Your task to perform on an android device: snooze an email in the gmail app Image 0: 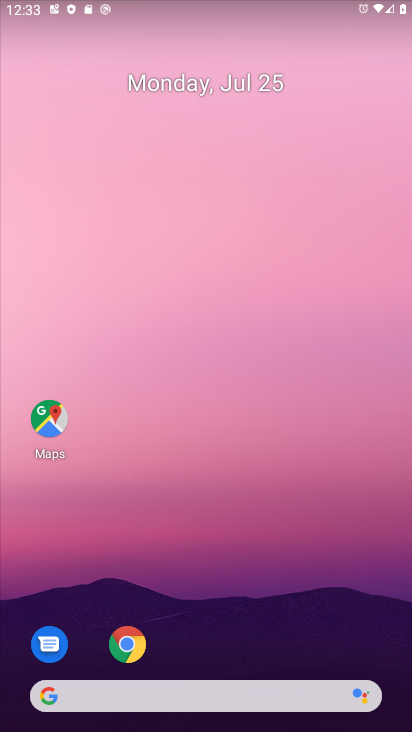
Step 0: drag from (404, 630) to (122, 77)
Your task to perform on an android device: snooze an email in the gmail app Image 1: 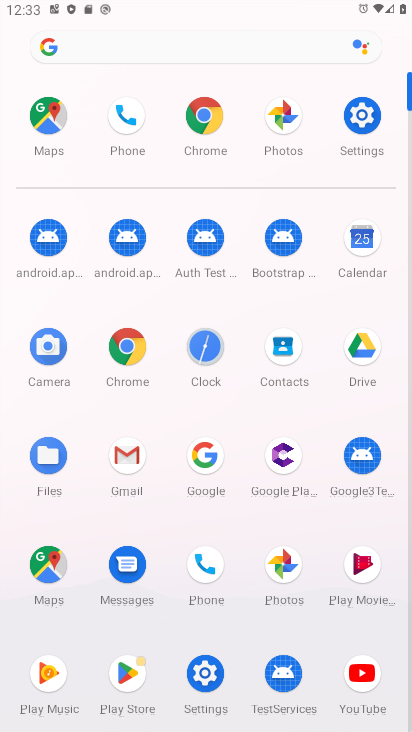
Step 1: click (126, 464)
Your task to perform on an android device: snooze an email in the gmail app Image 2: 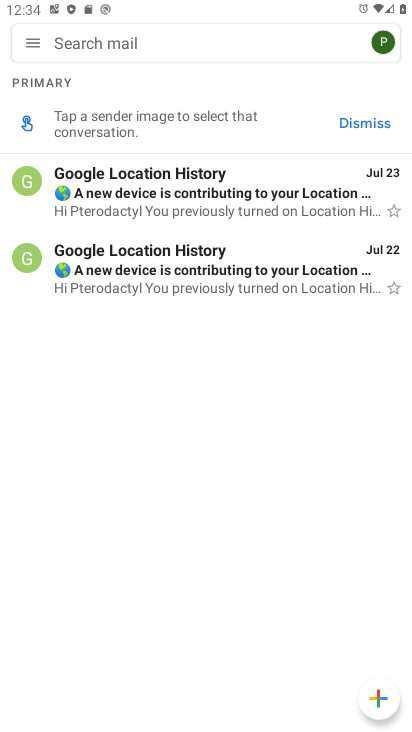
Step 2: click (320, 205)
Your task to perform on an android device: snooze an email in the gmail app Image 3: 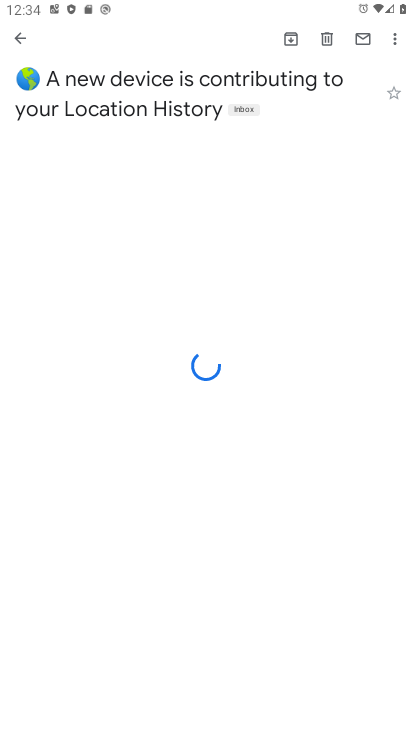
Step 3: click (411, 22)
Your task to perform on an android device: snooze an email in the gmail app Image 4: 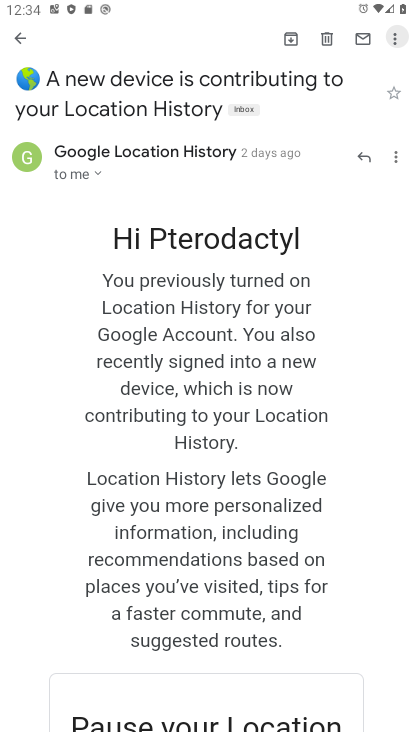
Step 4: click (395, 29)
Your task to perform on an android device: snooze an email in the gmail app Image 5: 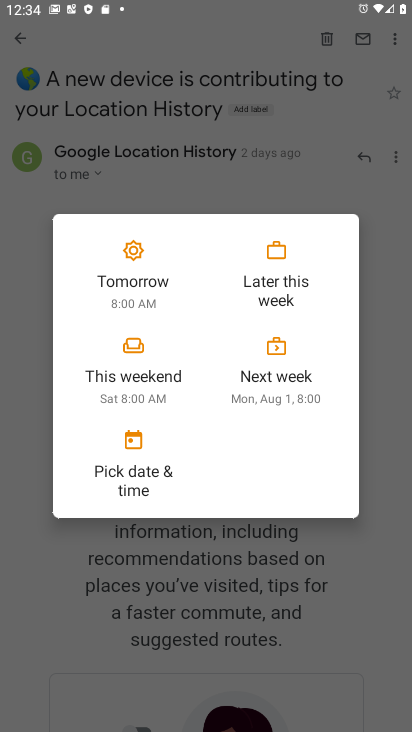
Step 5: click (277, 284)
Your task to perform on an android device: snooze an email in the gmail app Image 6: 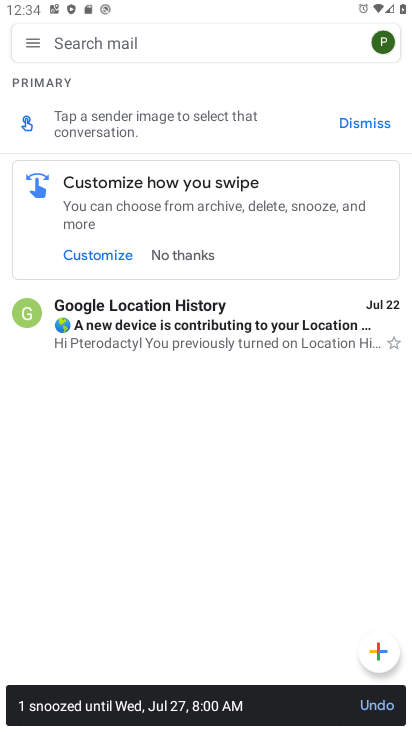
Step 6: task complete